Your task to perform on an android device: Go to privacy settings Image 0: 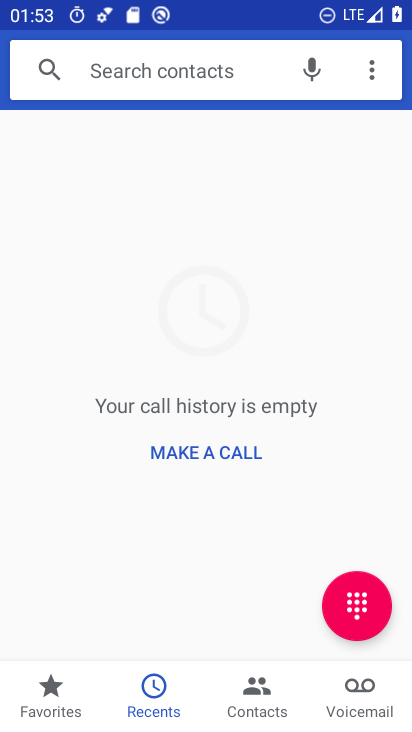
Step 0: press home button
Your task to perform on an android device: Go to privacy settings Image 1: 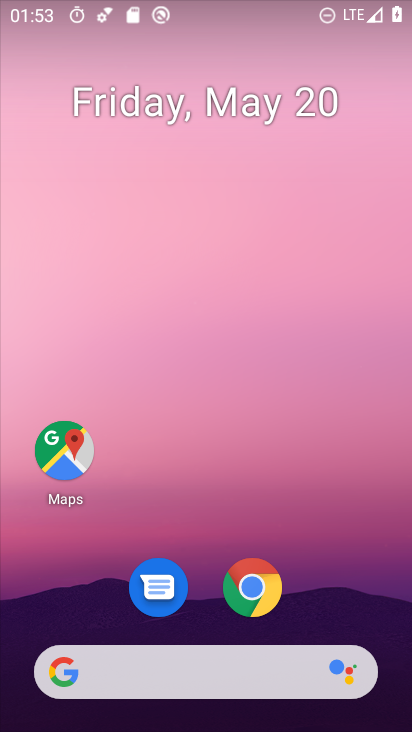
Step 1: drag from (369, 619) to (361, 239)
Your task to perform on an android device: Go to privacy settings Image 2: 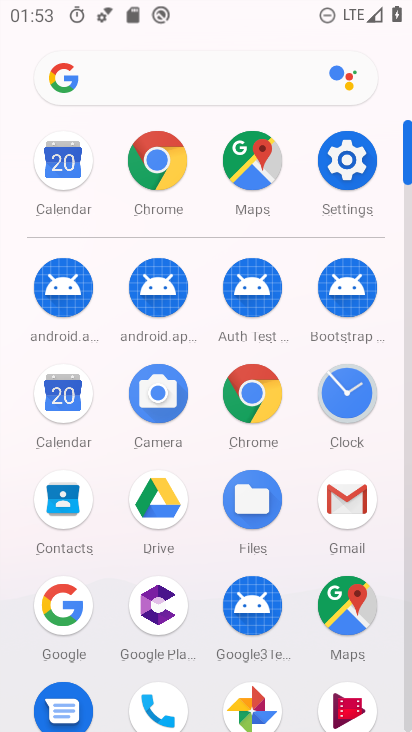
Step 2: click (341, 174)
Your task to perform on an android device: Go to privacy settings Image 3: 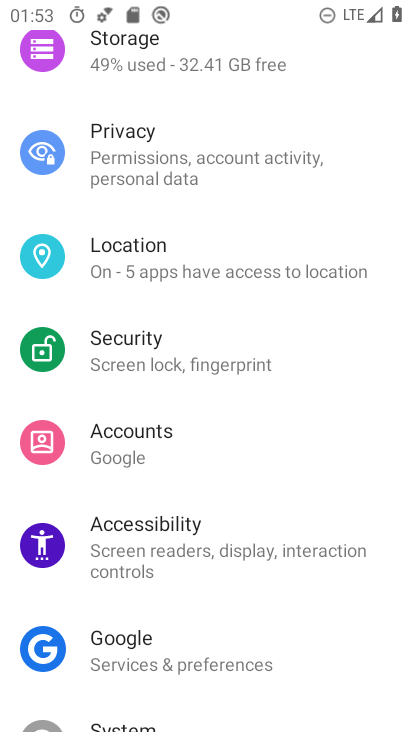
Step 3: drag from (377, 469) to (374, 325)
Your task to perform on an android device: Go to privacy settings Image 4: 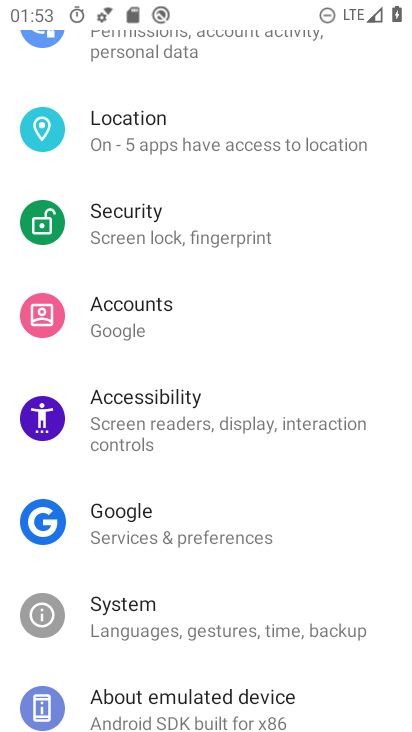
Step 4: drag from (370, 551) to (369, 423)
Your task to perform on an android device: Go to privacy settings Image 5: 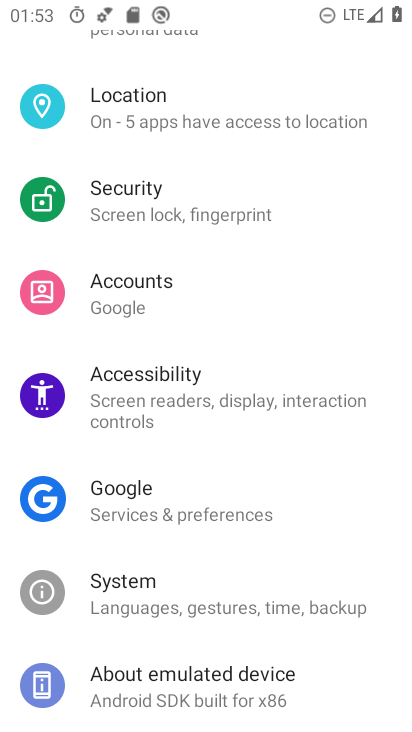
Step 5: drag from (368, 635) to (370, 477)
Your task to perform on an android device: Go to privacy settings Image 6: 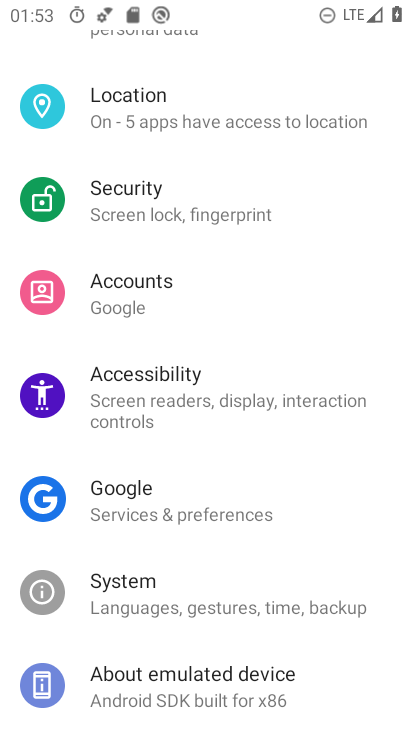
Step 6: drag from (352, 318) to (341, 519)
Your task to perform on an android device: Go to privacy settings Image 7: 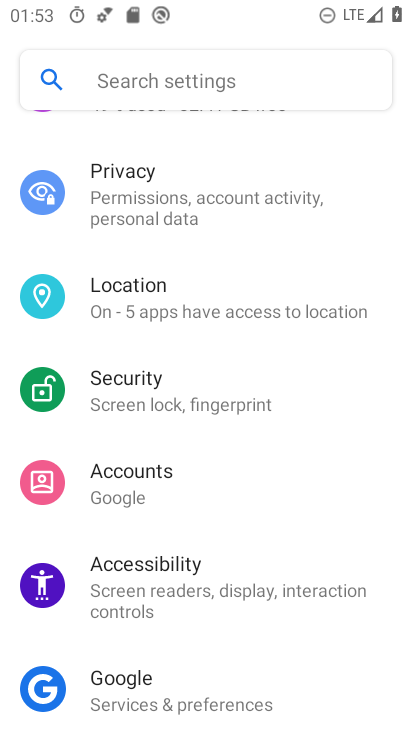
Step 7: drag from (345, 268) to (345, 425)
Your task to perform on an android device: Go to privacy settings Image 8: 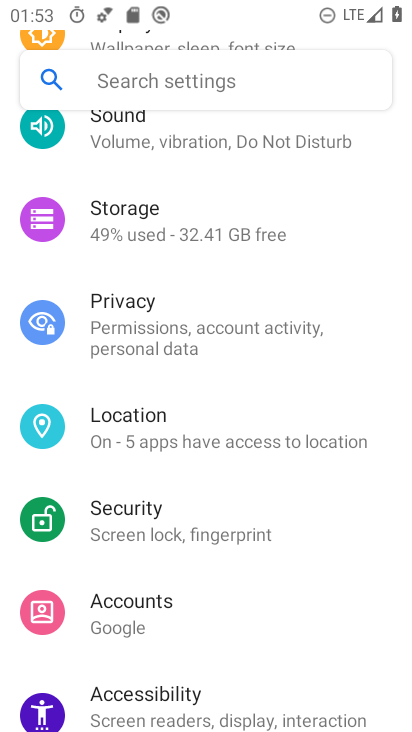
Step 8: drag from (371, 250) to (356, 375)
Your task to perform on an android device: Go to privacy settings Image 9: 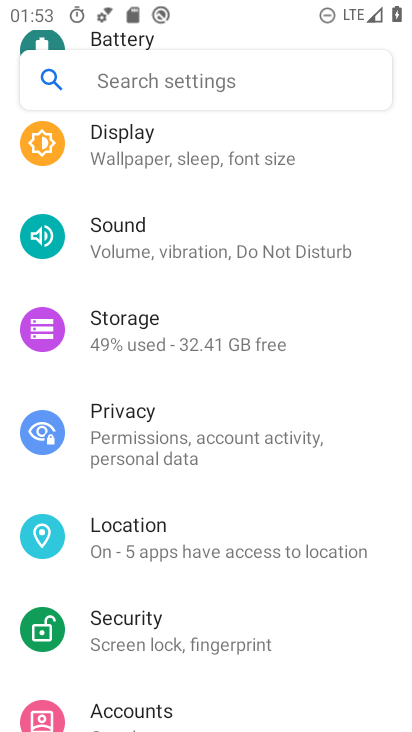
Step 9: click (318, 441)
Your task to perform on an android device: Go to privacy settings Image 10: 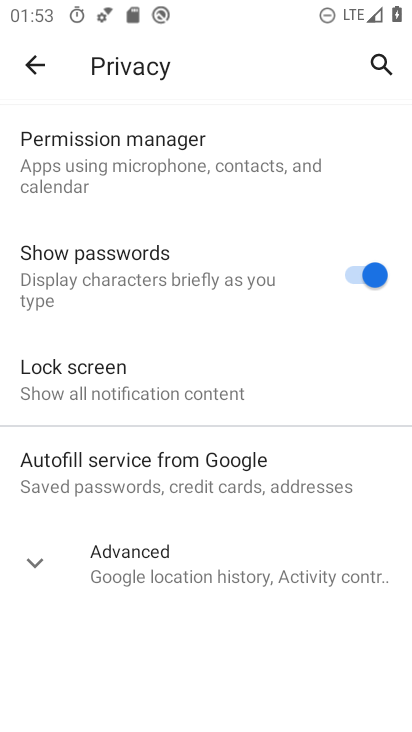
Step 10: task complete